Your task to perform on an android device: What's on my calendar tomorrow? Image 0: 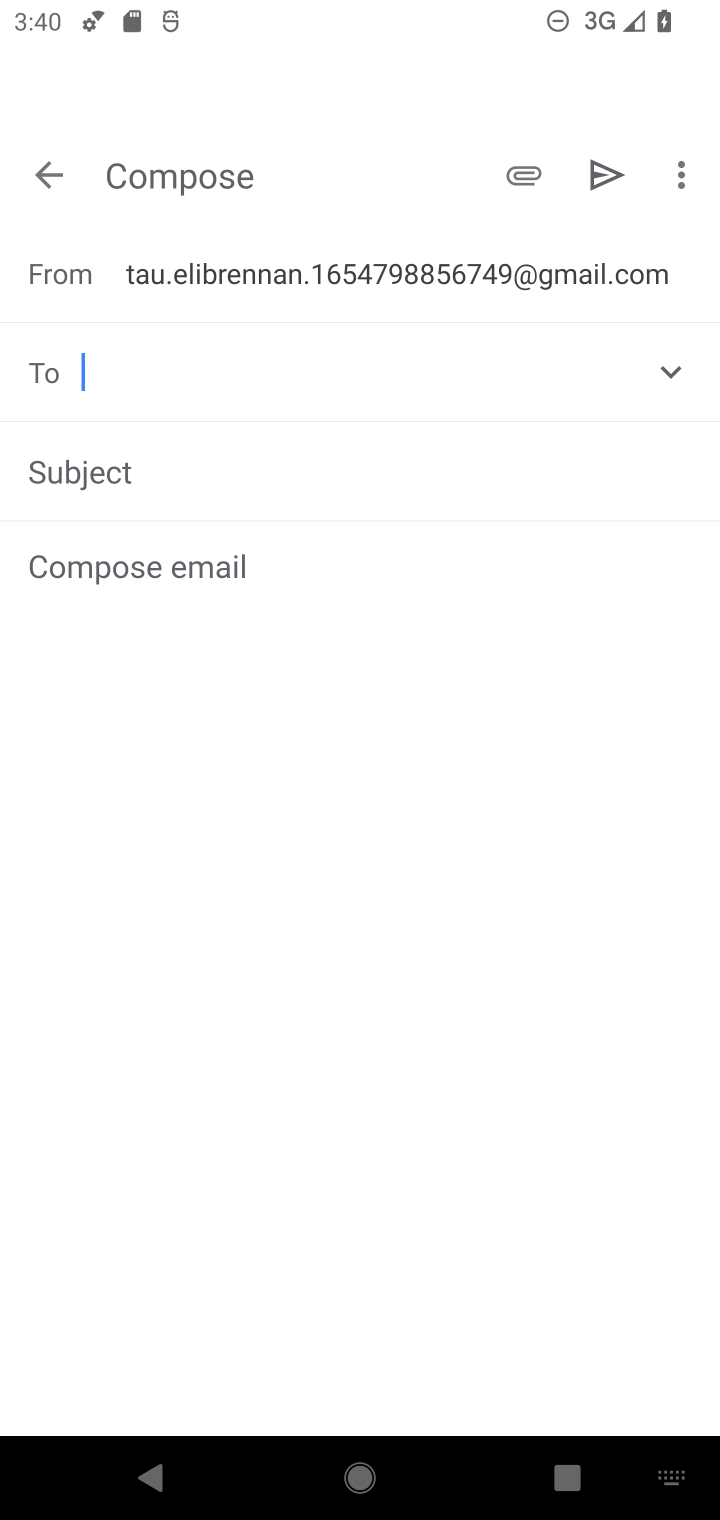
Step 0: press home button
Your task to perform on an android device: What's on my calendar tomorrow? Image 1: 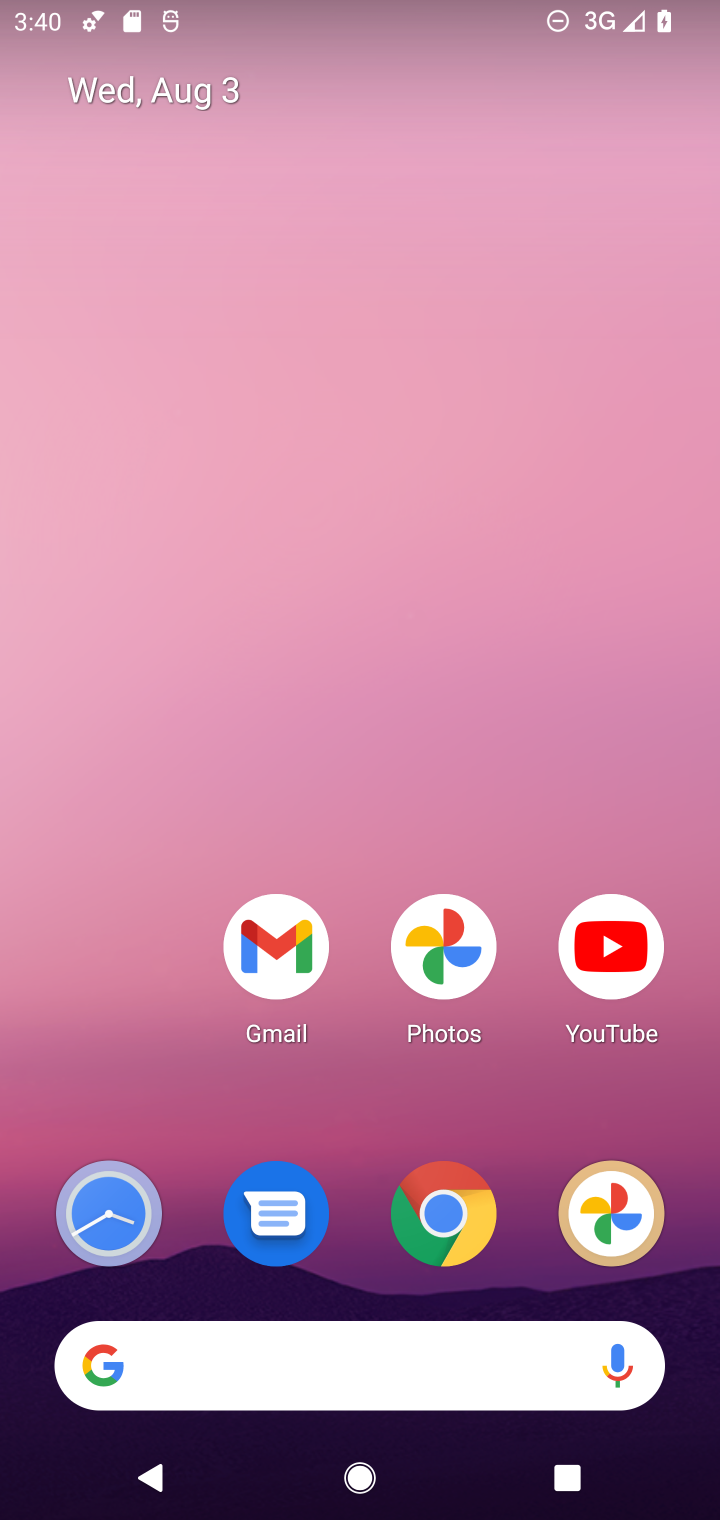
Step 1: drag from (371, 1309) to (327, 372)
Your task to perform on an android device: What's on my calendar tomorrow? Image 2: 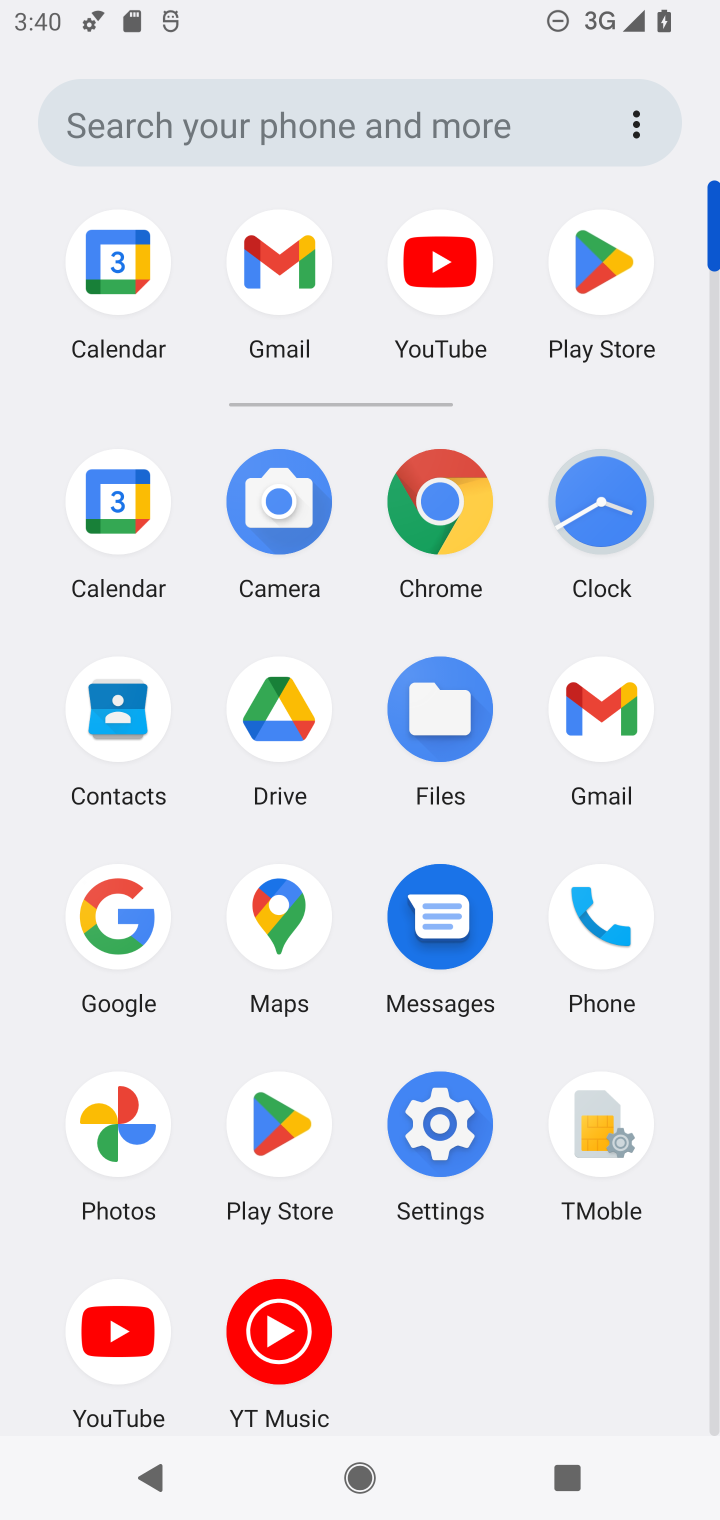
Step 2: click (77, 484)
Your task to perform on an android device: What's on my calendar tomorrow? Image 3: 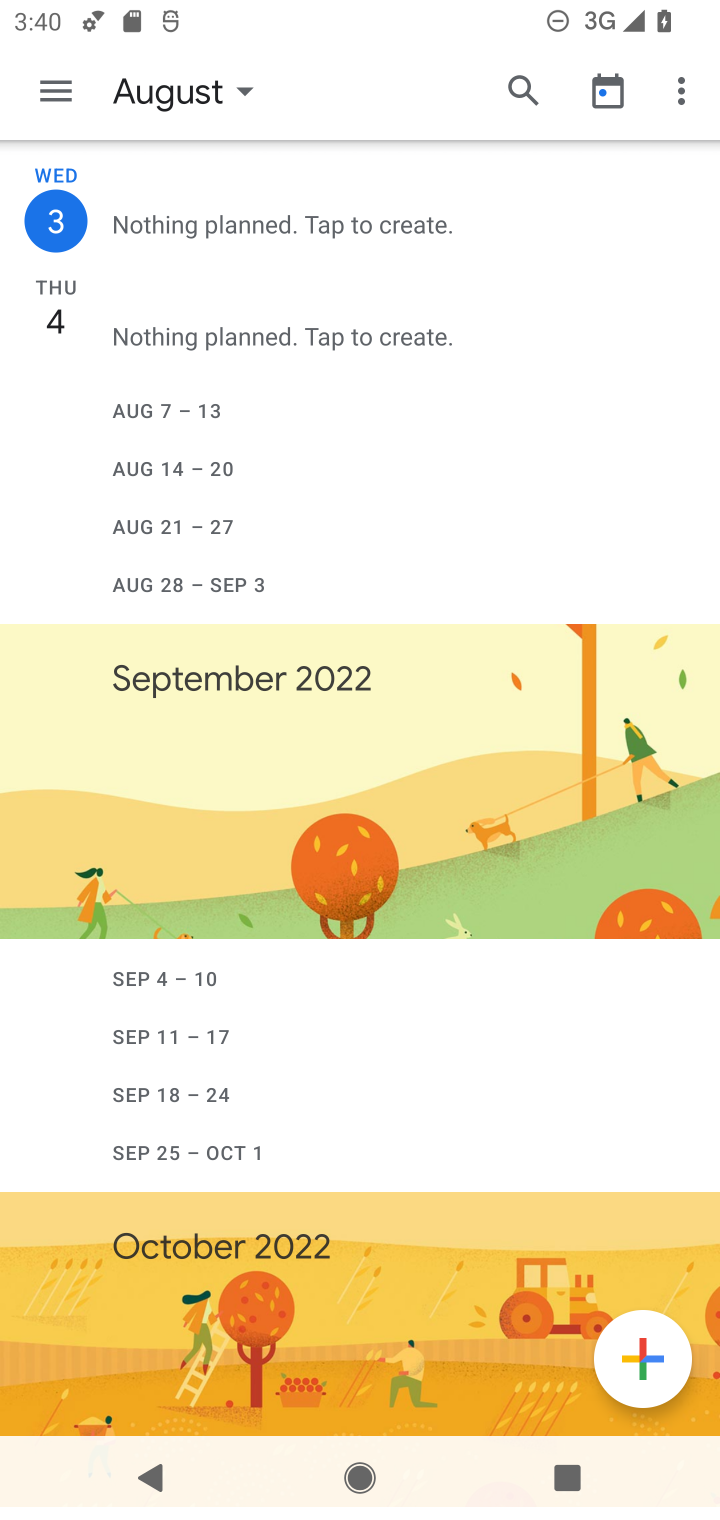
Step 3: click (98, 346)
Your task to perform on an android device: What's on my calendar tomorrow? Image 4: 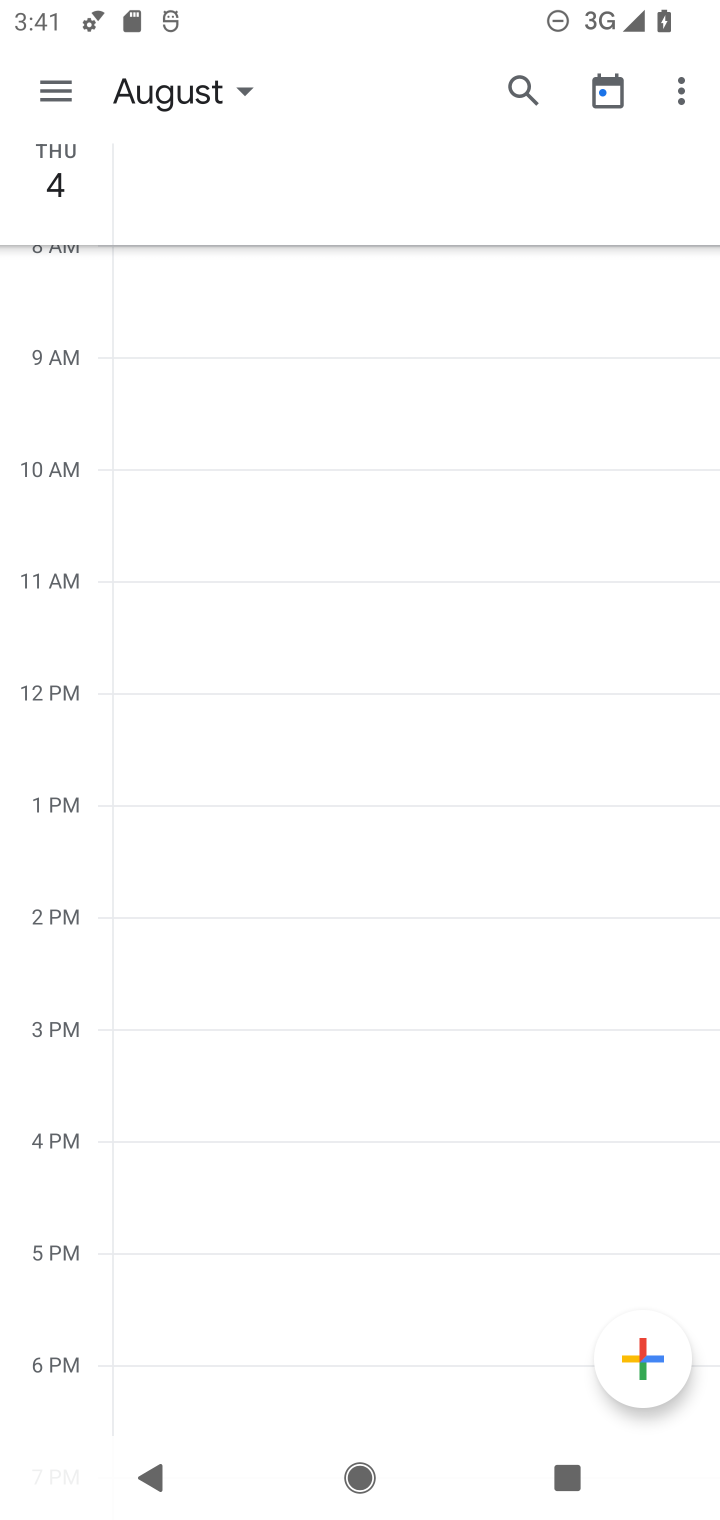
Step 4: task complete